Your task to perform on an android device: Add alienware aurora to the cart on bestbuy.com, then select checkout. Image 0: 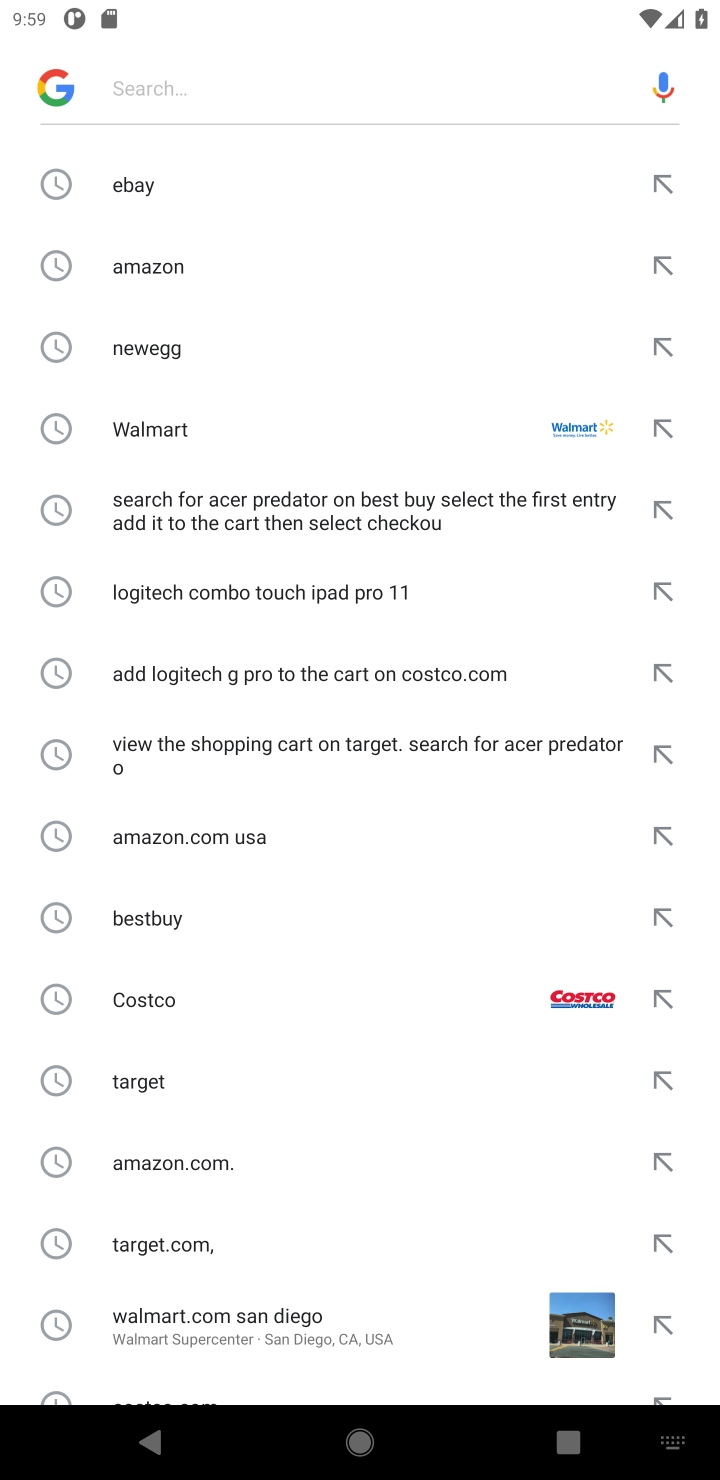
Step 0: press home button
Your task to perform on an android device: Add alienware aurora to the cart on bestbuy.com, then select checkout. Image 1: 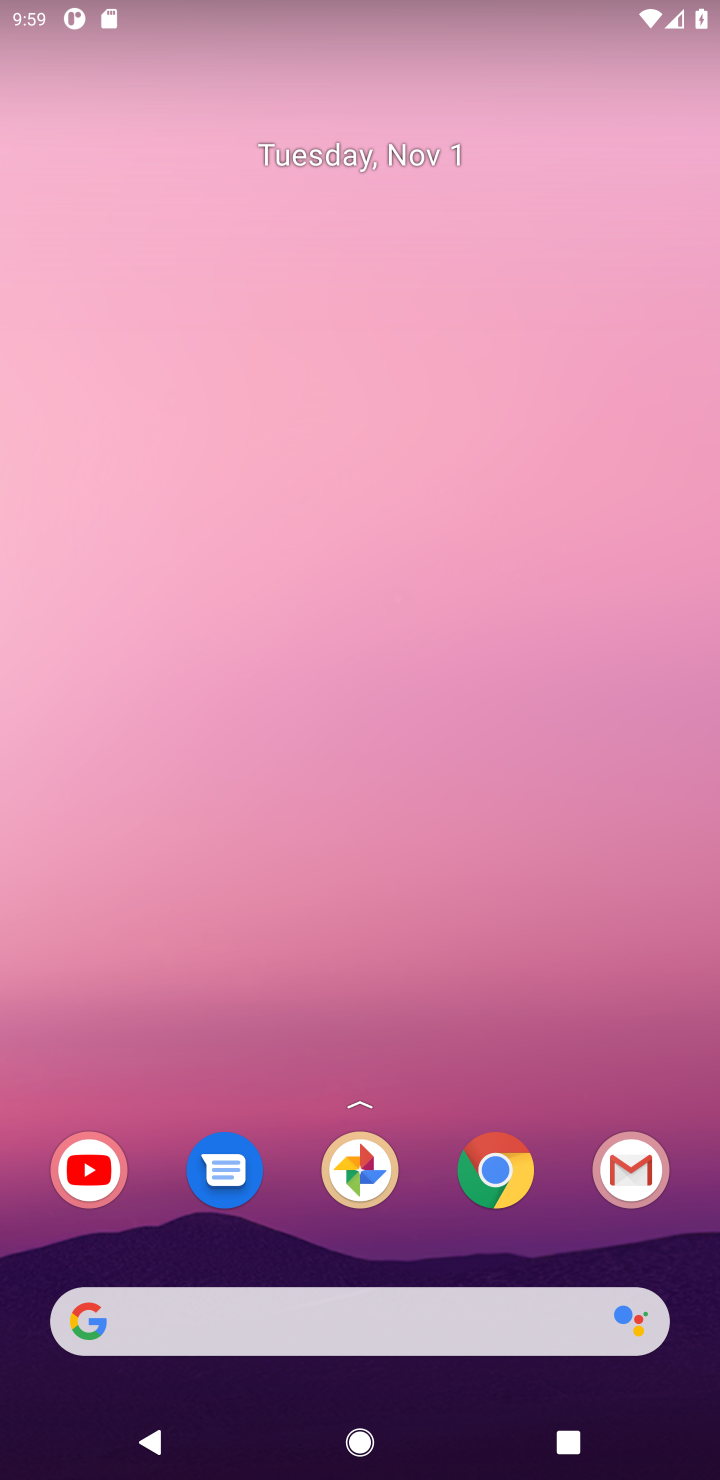
Step 1: click (511, 1195)
Your task to perform on an android device: Add alienware aurora to the cart on bestbuy.com, then select checkout. Image 2: 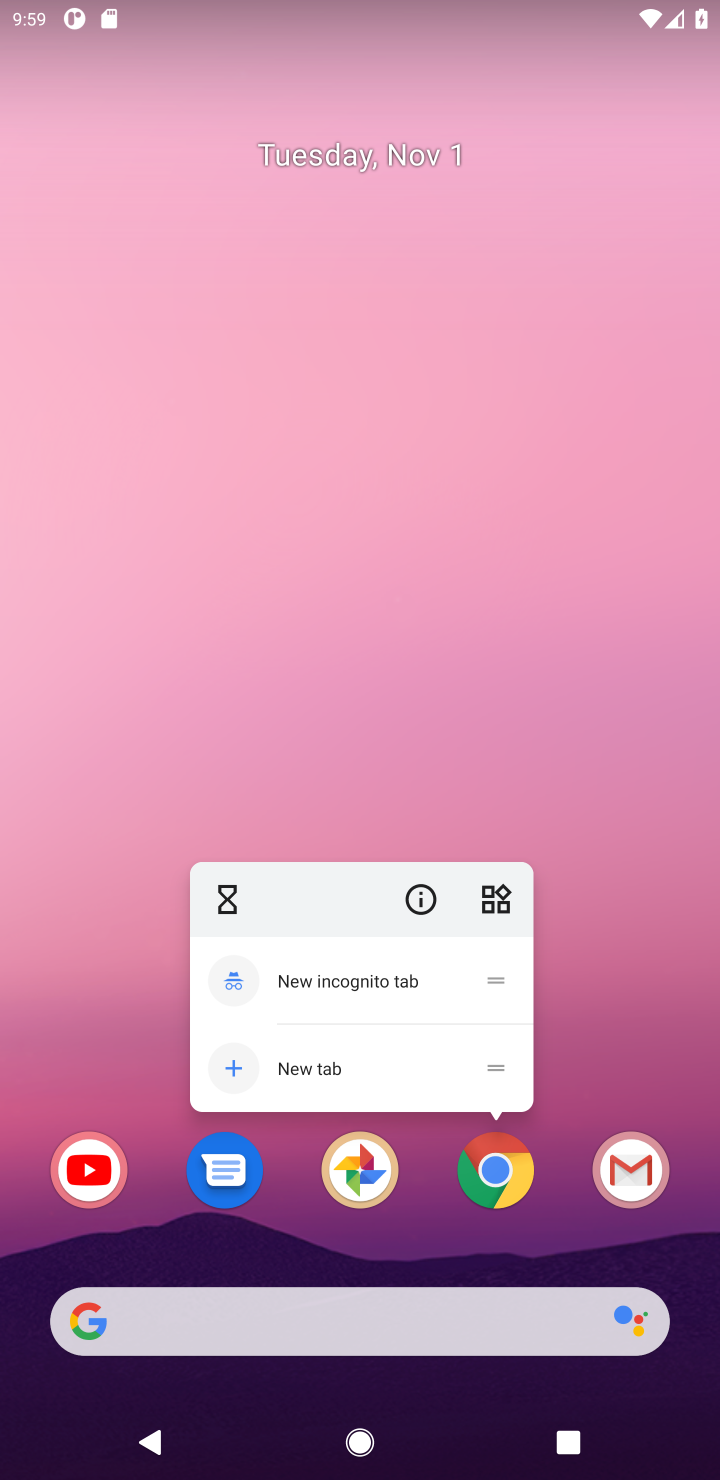
Step 2: click (486, 1176)
Your task to perform on an android device: Add alienware aurora to the cart on bestbuy.com, then select checkout. Image 3: 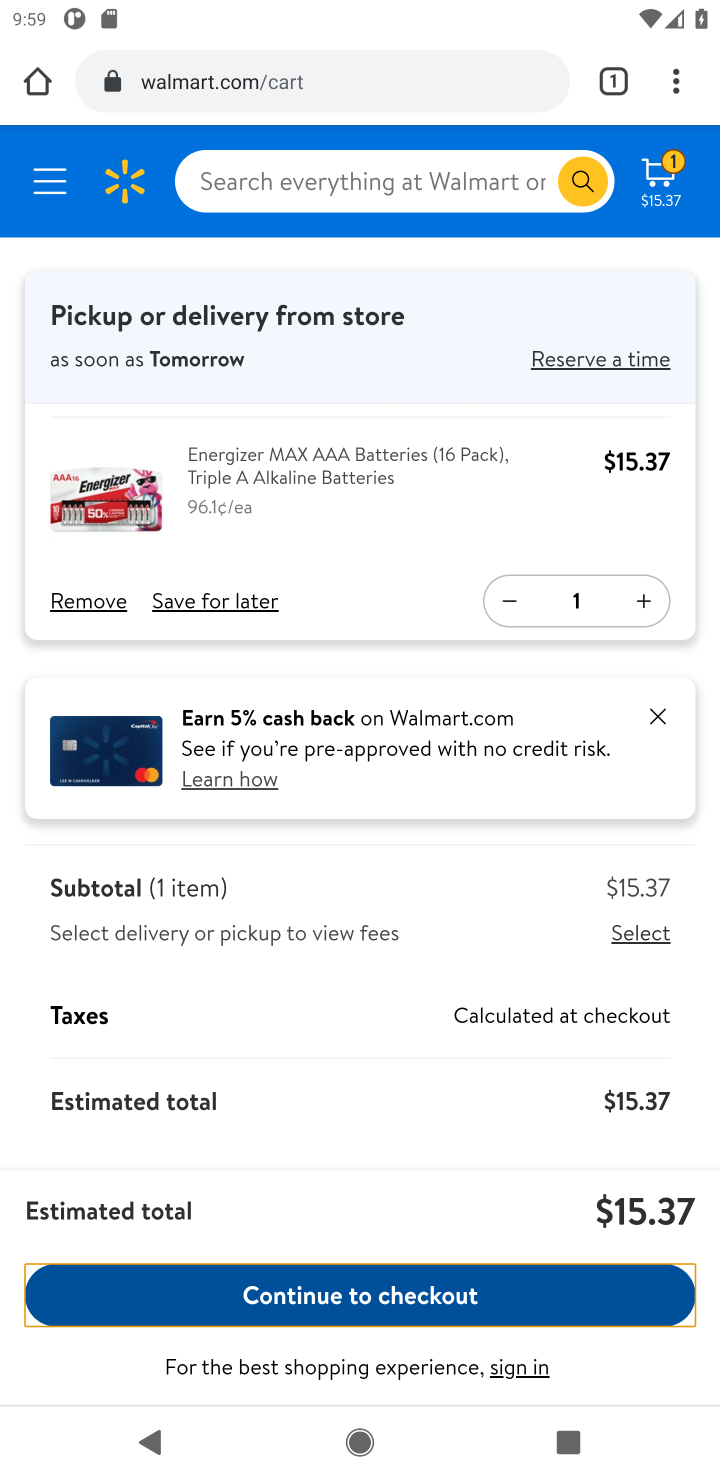
Step 3: click (309, 78)
Your task to perform on an android device: Add alienware aurora to the cart on bestbuy.com, then select checkout. Image 4: 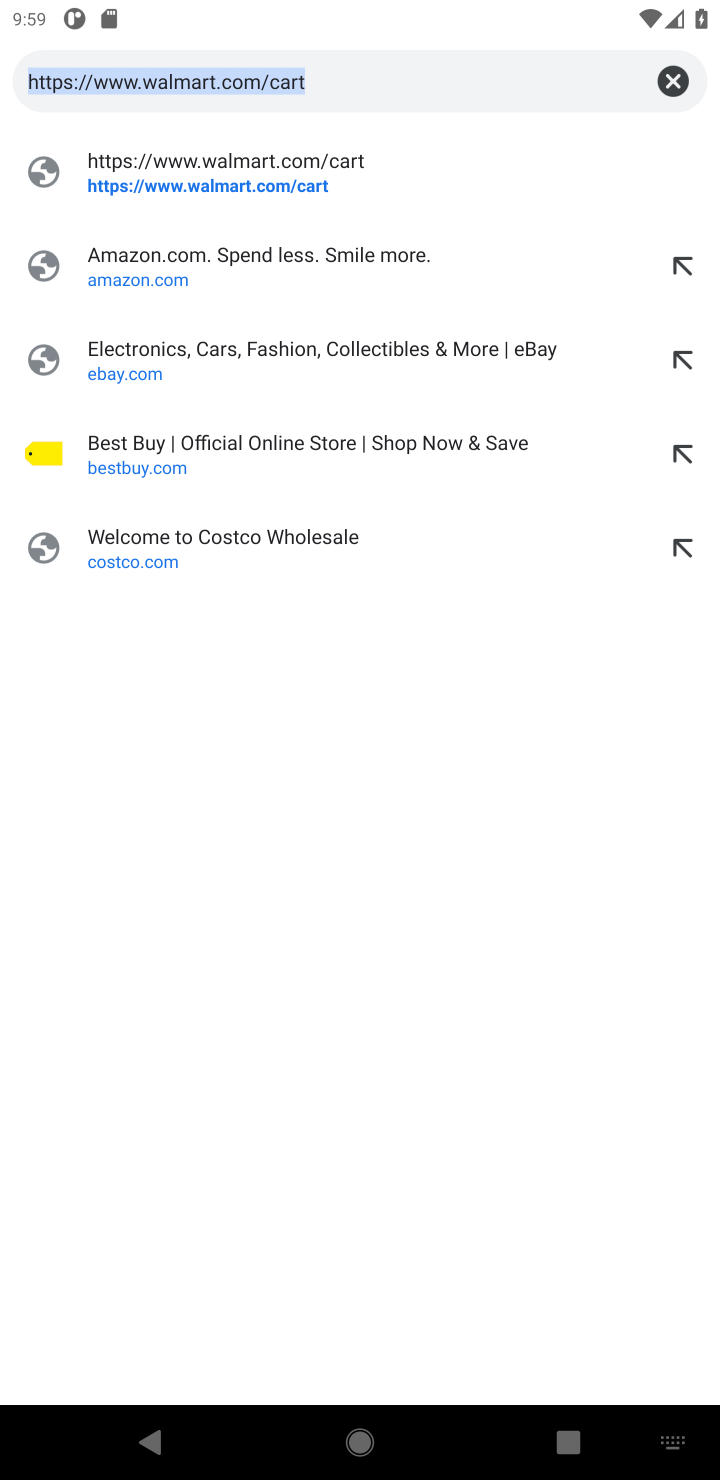
Step 4: type "bestbuy.com"
Your task to perform on an android device: Add alienware aurora to the cart on bestbuy.com, then select checkout. Image 5: 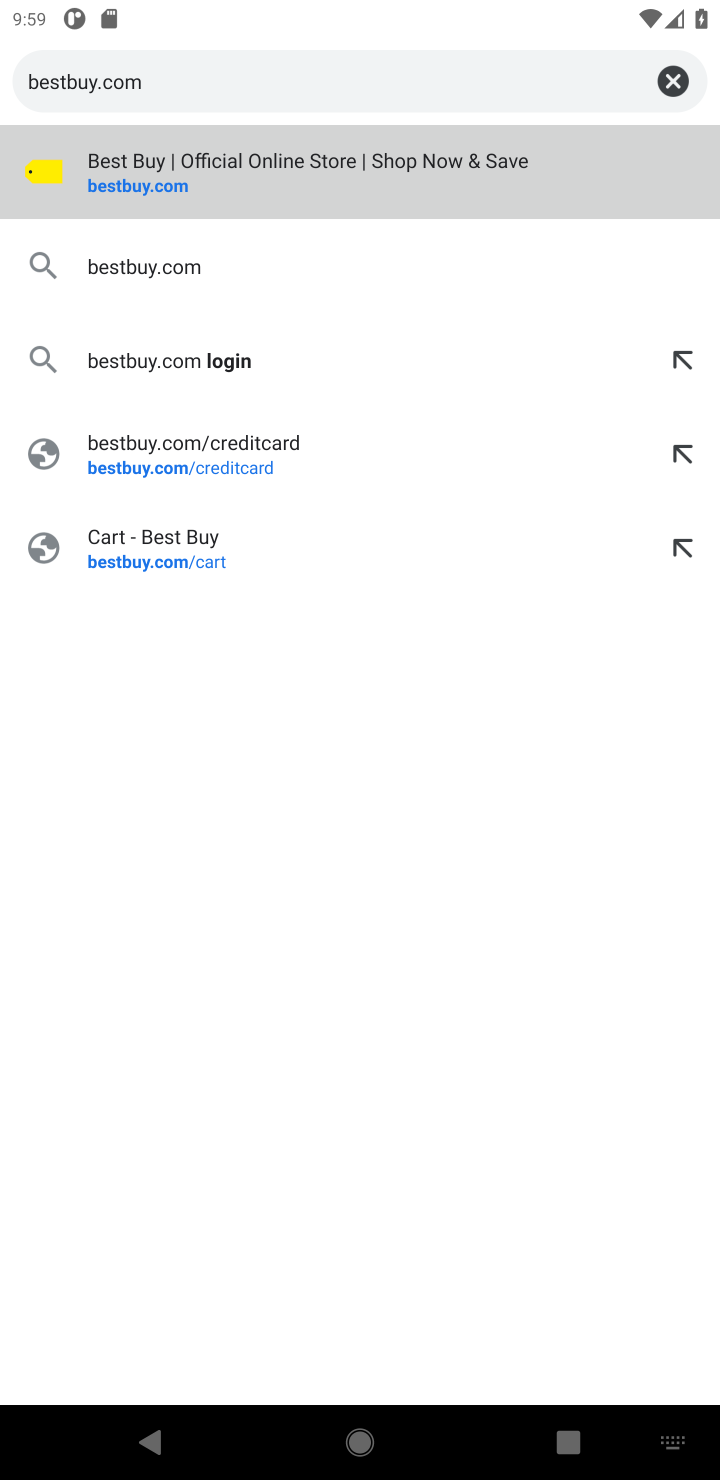
Step 5: type ""
Your task to perform on an android device: Add alienware aurora to the cart on bestbuy.com, then select checkout. Image 6: 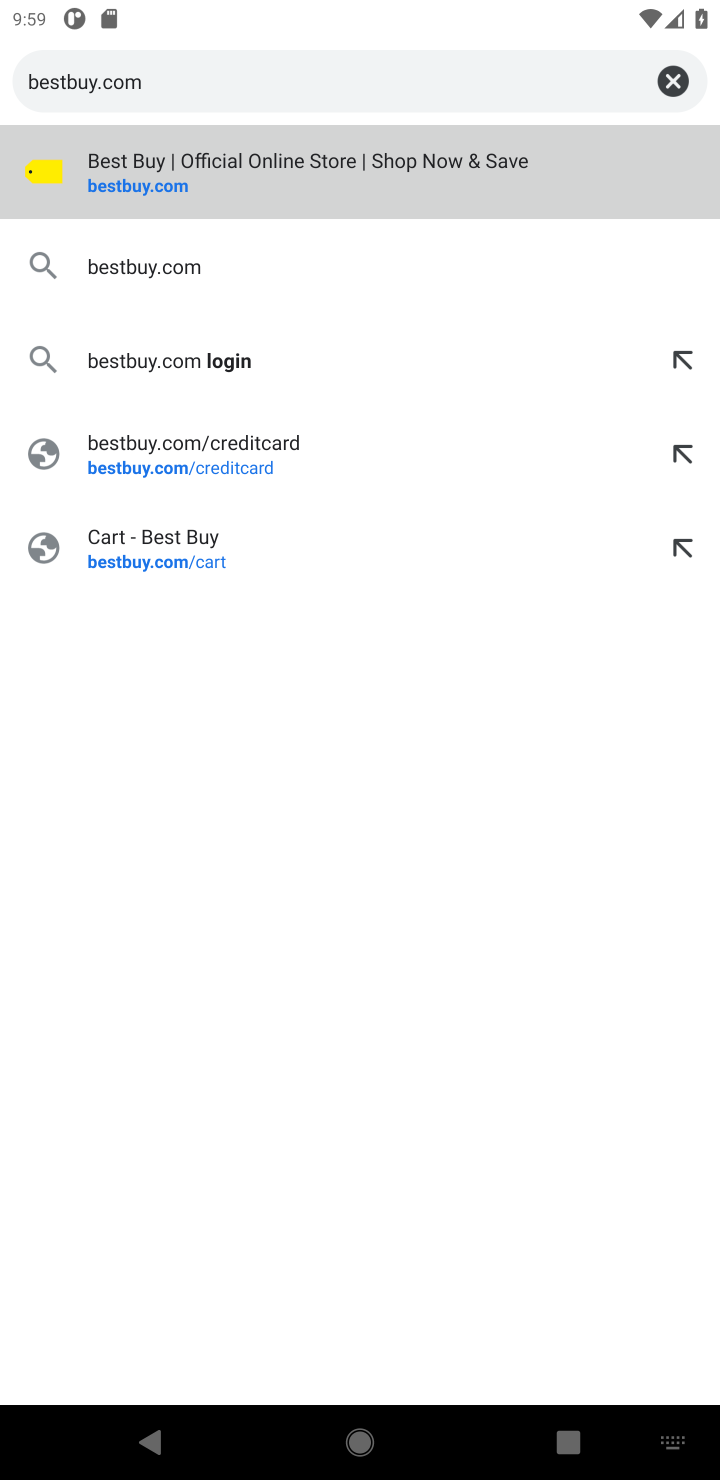
Step 6: press enter
Your task to perform on an android device: Add alienware aurora to the cart on bestbuy.com, then select checkout. Image 7: 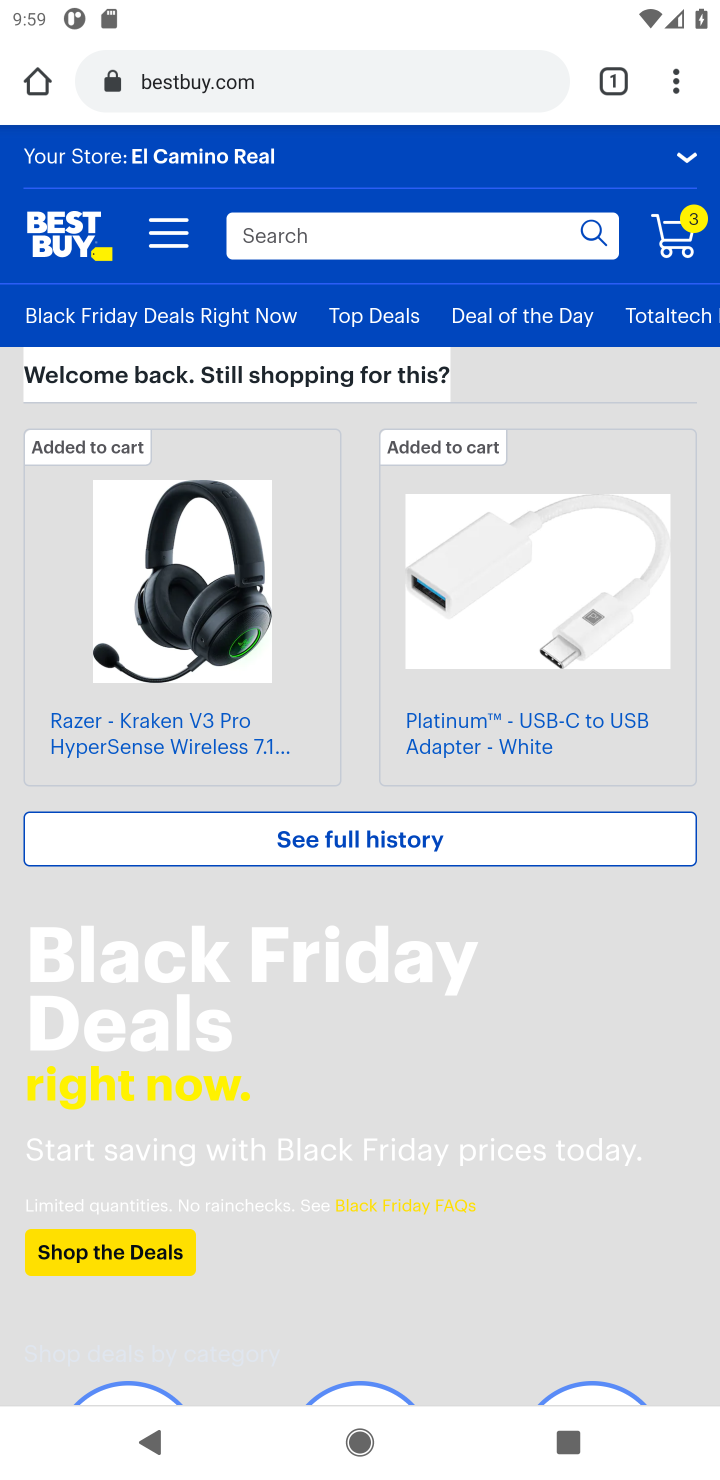
Step 7: click (331, 245)
Your task to perform on an android device: Add alienware aurora to the cart on bestbuy.com, then select checkout. Image 8: 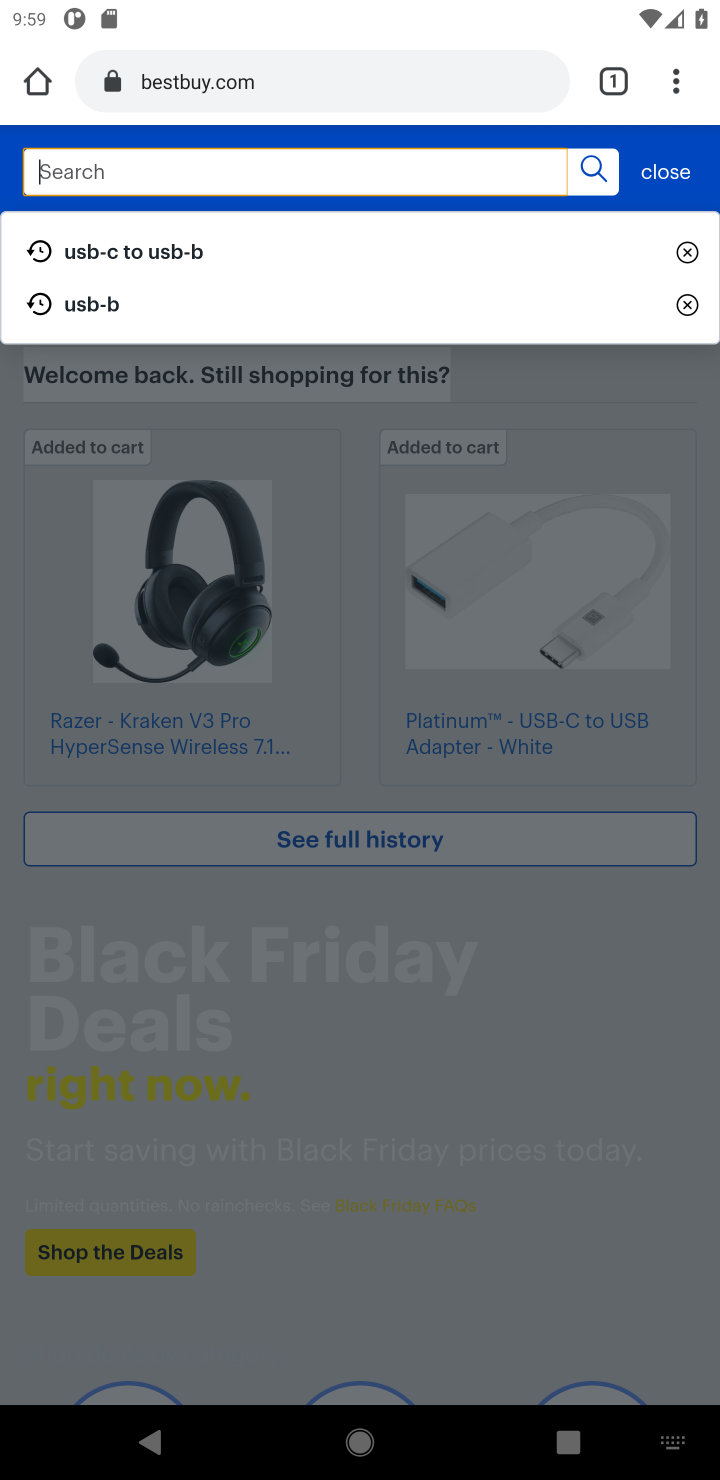
Step 8: type "alienware aurora"
Your task to perform on an android device: Add alienware aurora to the cart on bestbuy.com, then select checkout. Image 9: 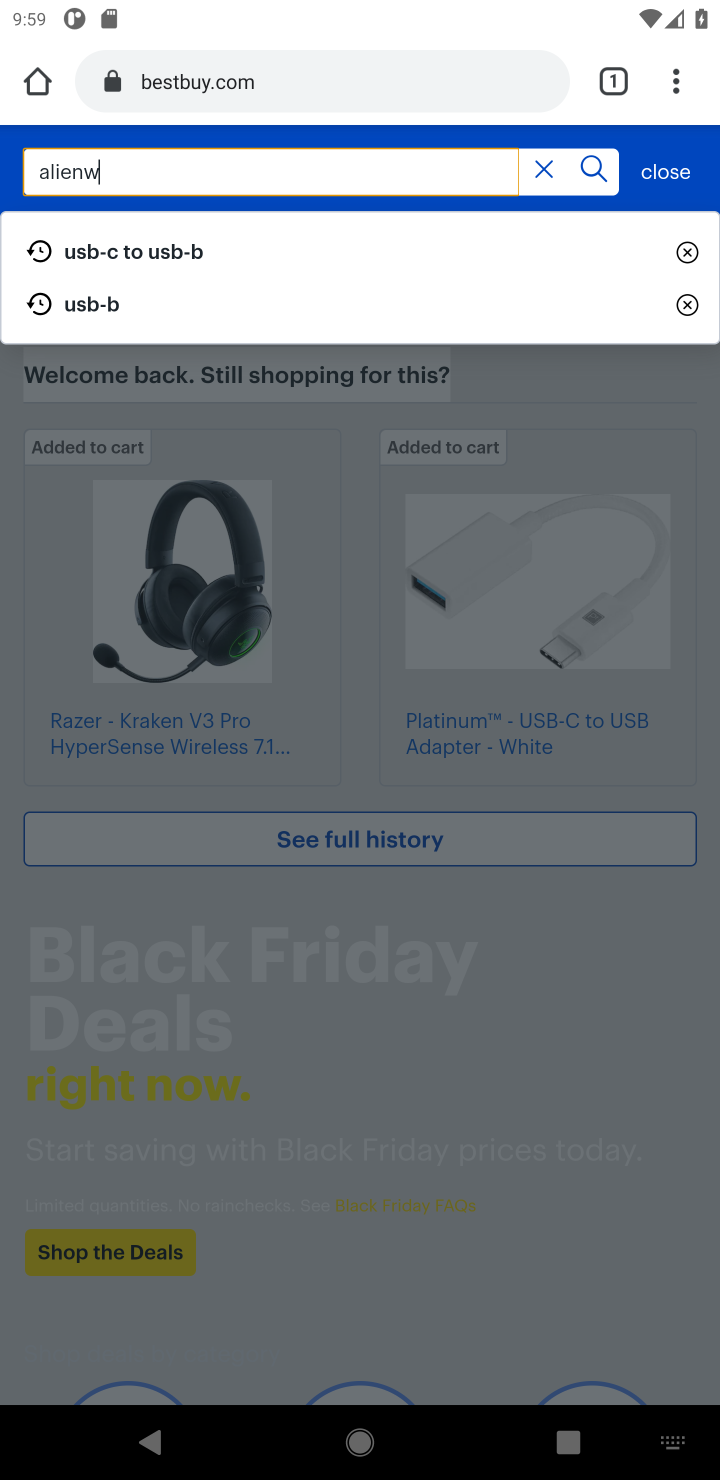
Step 9: type ""
Your task to perform on an android device: Add alienware aurora to the cart on bestbuy.com, then select checkout. Image 10: 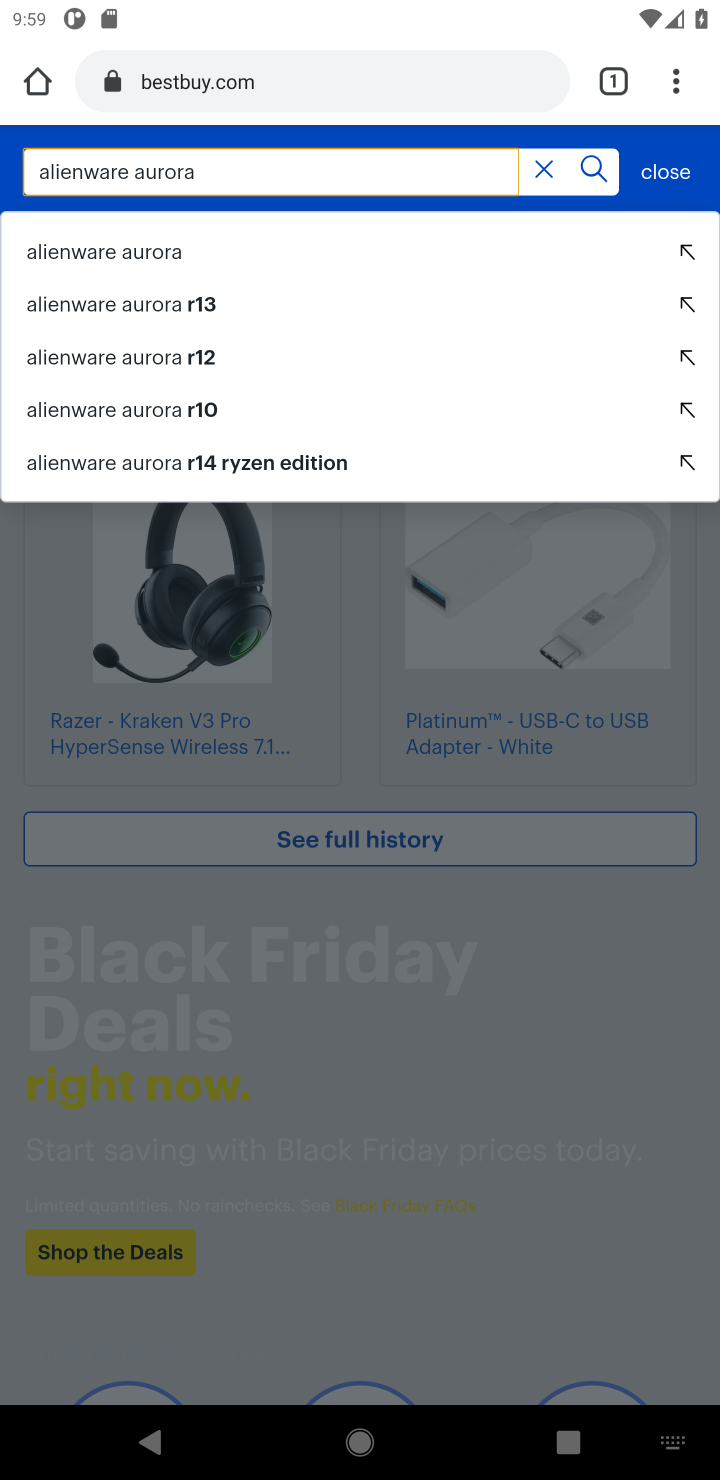
Step 10: press enter
Your task to perform on an android device: Add alienware aurora to the cart on bestbuy.com, then select checkout. Image 11: 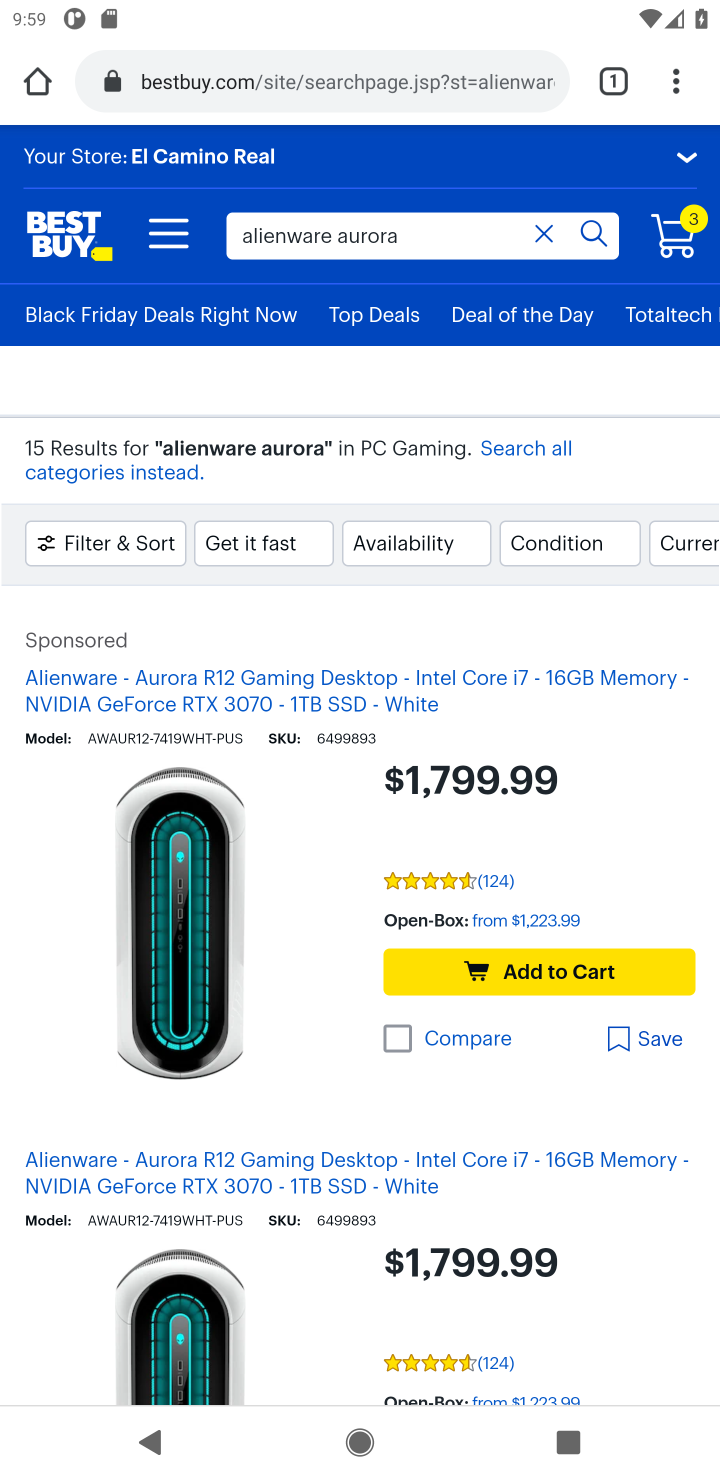
Step 11: click (246, 682)
Your task to perform on an android device: Add alienware aurora to the cart on bestbuy.com, then select checkout. Image 12: 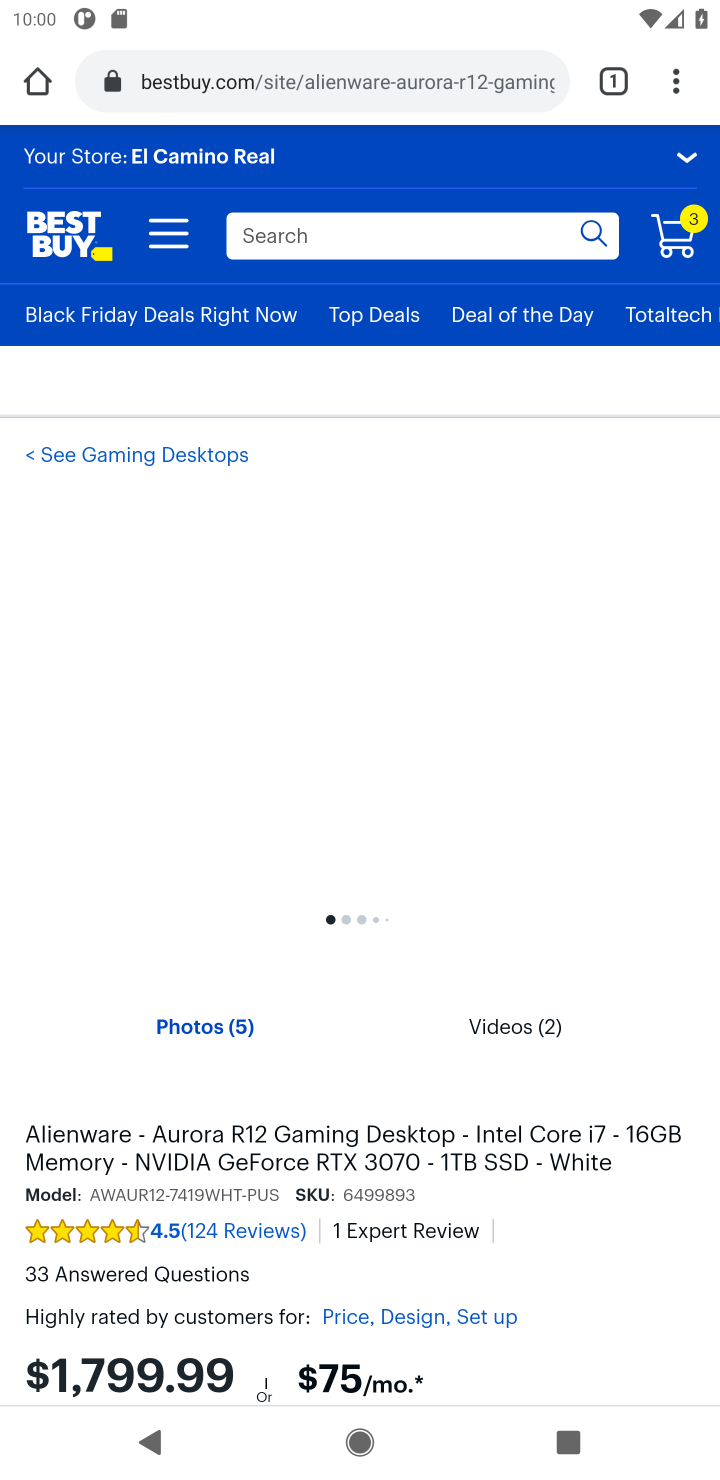
Step 12: drag from (533, 1255) to (422, 503)
Your task to perform on an android device: Add alienware aurora to the cart on bestbuy.com, then select checkout. Image 13: 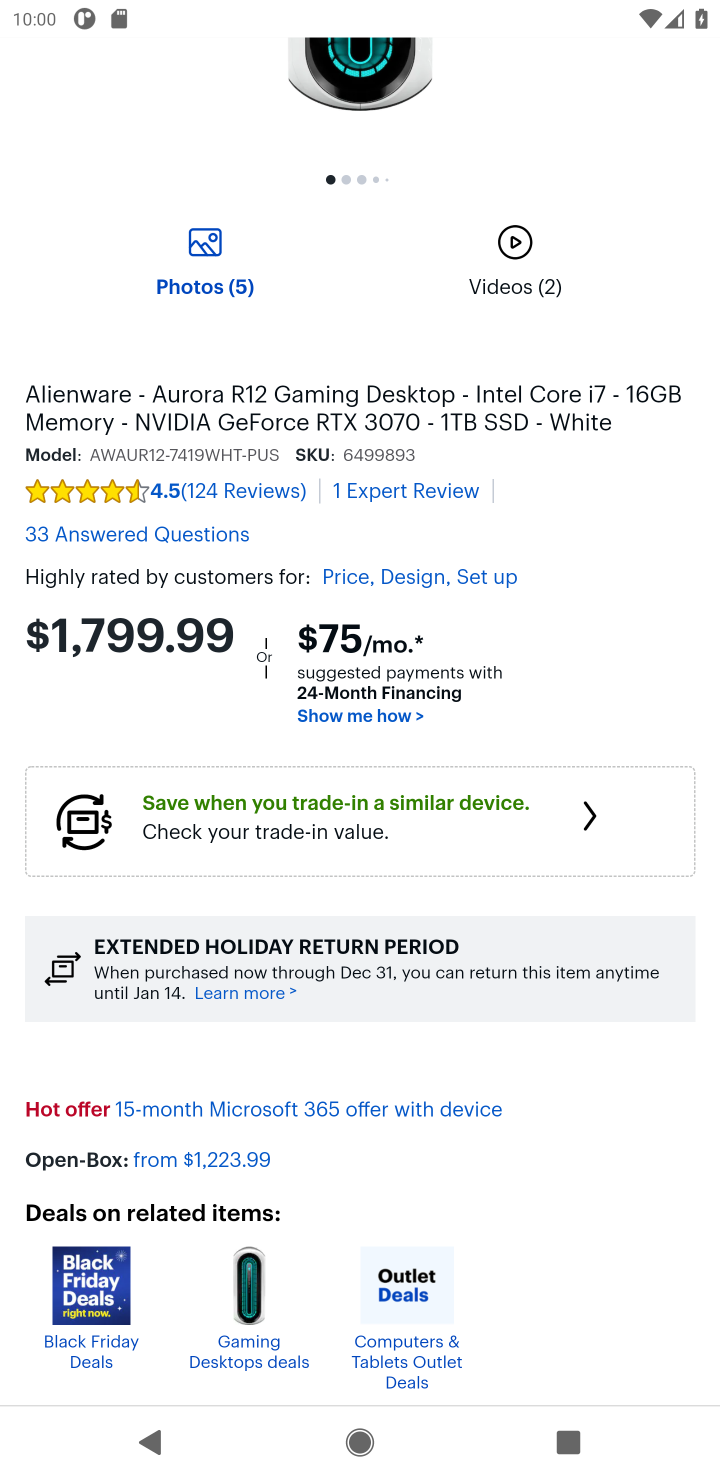
Step 13: drag from (562, 1159) to (455, 418)
Your task to perform on an android device: Add alienware aurora to the cart on bestbuy.com, then select checkout. Image 14: 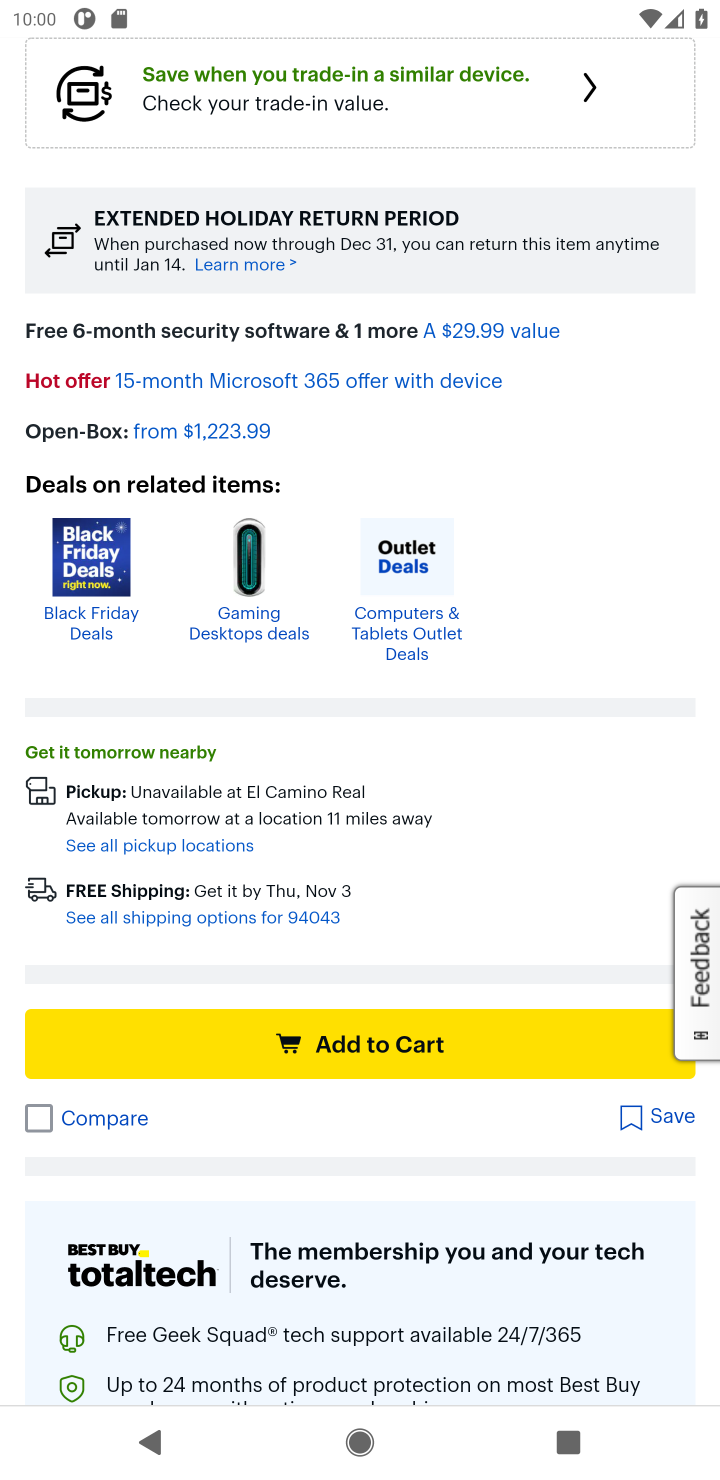
Step 14: click (250, 1036)
Your task to perform on an android device: Add alienware aurora to the cart on bestbuy.com, then select checkout. Image 15: 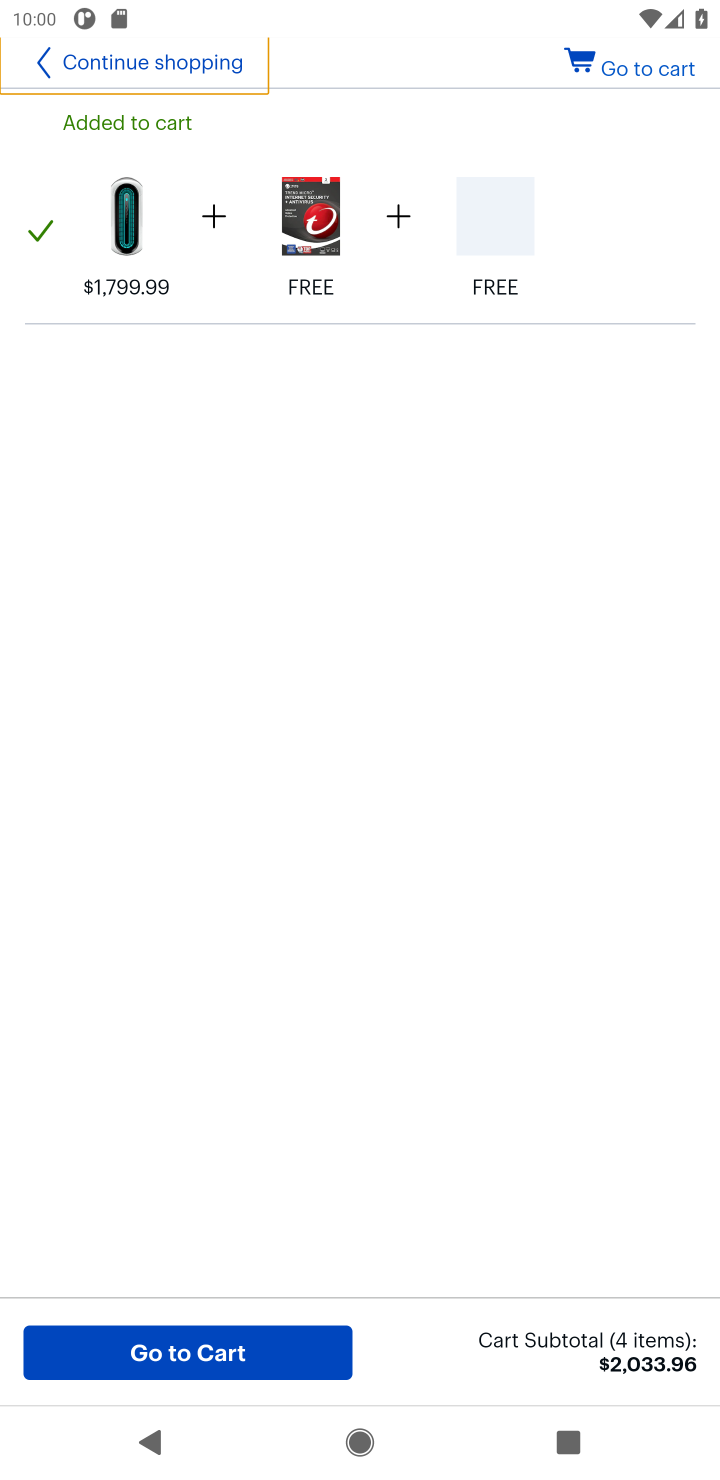
Step 15: click (251, 1354)
Your task to perform on an android device: Add alienware aurora to the cart on bestbuy.com, then select checkout. Image 16: 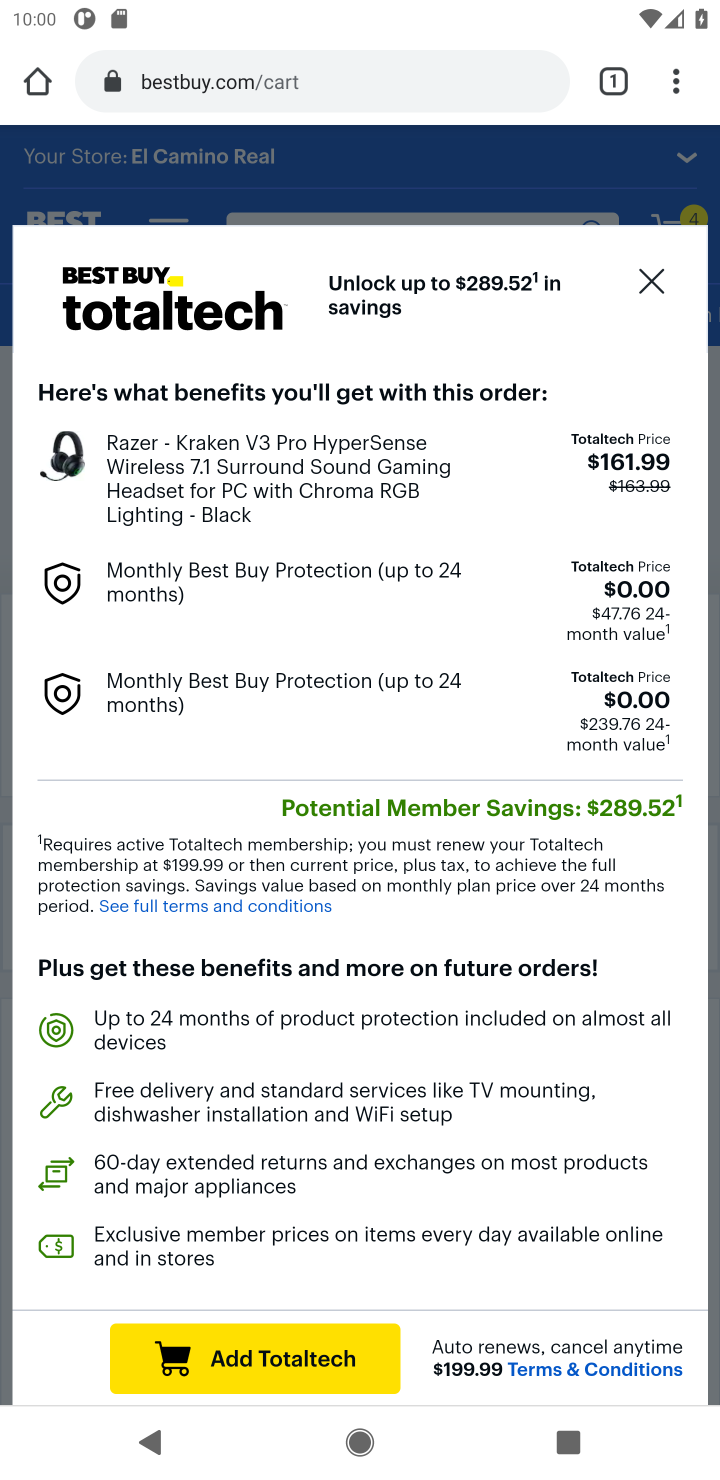
Step 16: click (651, 289)
Your task to perform on an android device: Add alienware aurora to the cart on bestbuy.com, then select checkout. Image 17: 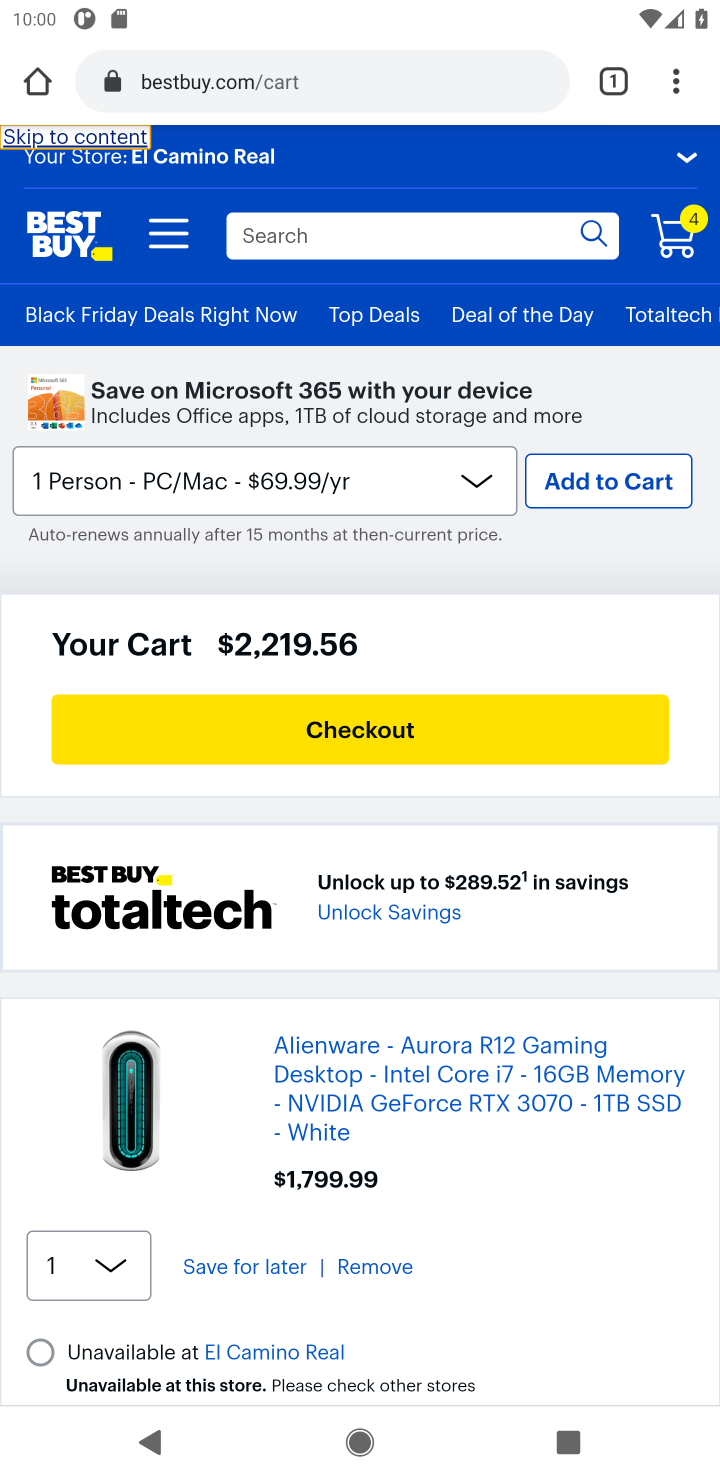
Step 17: click (421, 743)
Your task to perform on an android device: Add alienware aurora to the cart on bestbuy.com, then select checkout. Image 18: 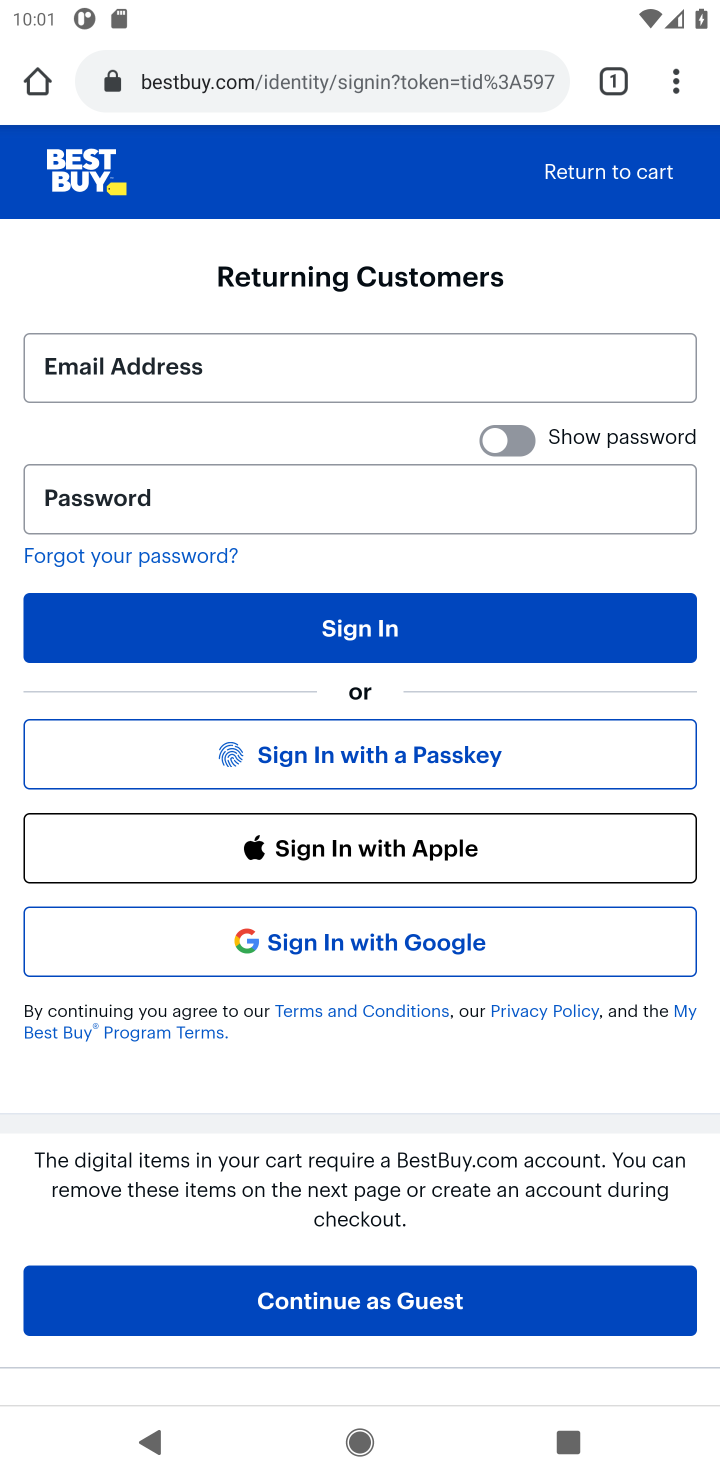
Step 18: task complete